Your task to perform on an android device: star an email in the gmail app Image 0: 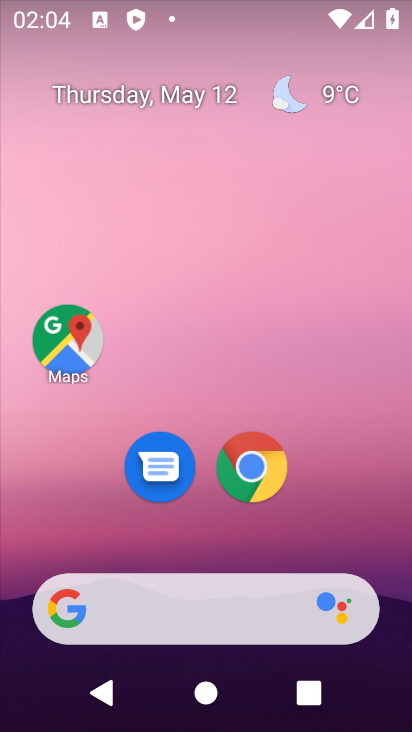
Step 0: drag from (313, 538) to (319, 194)
Your task to perform on an android device: star an email in the gmail app Image 1: 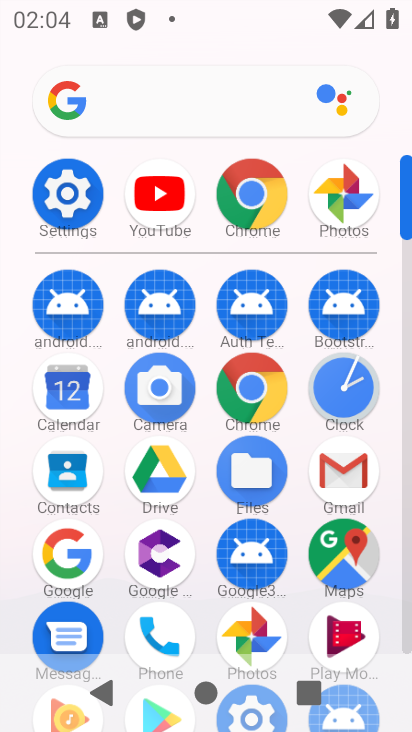
Step 1: click (350, 473)
Your task to perform on an android device: star an email in the gmail app Image 2: 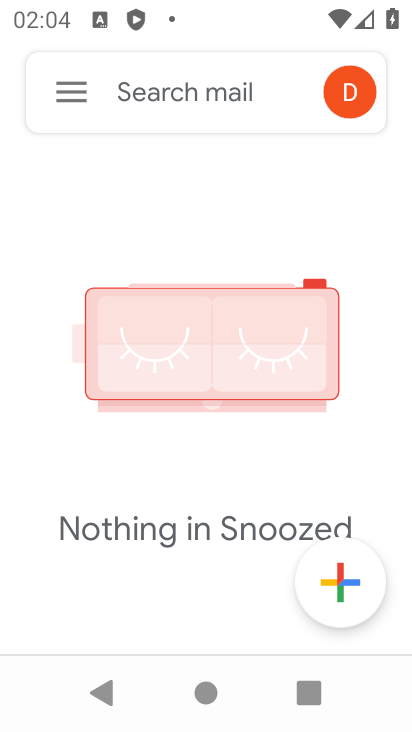
Step 2: click (63, 85)
Your task to perform on an android device: star an email in the gmail app Image 3: 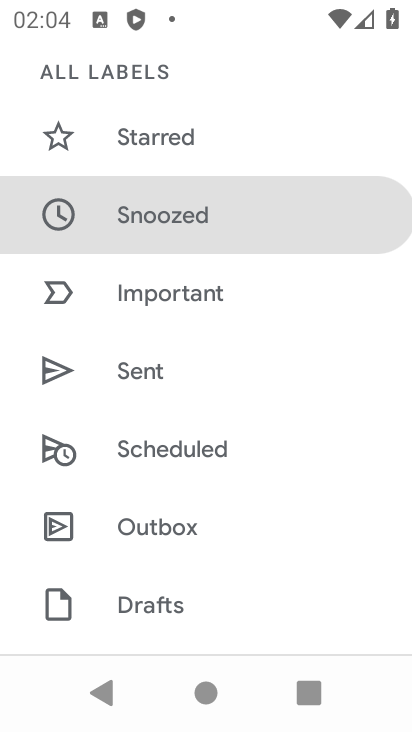
Step 3: drag from (195, 145) to (199, 281)
Your task to perform on an android device: star an email in the gmail app Image 4: 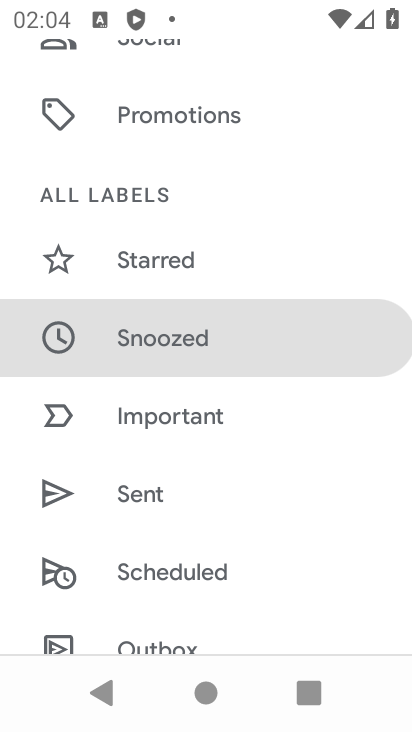
Step 4: click (127, 265)
Your task to perform on an android device: star an email in the gmail app Image 5: 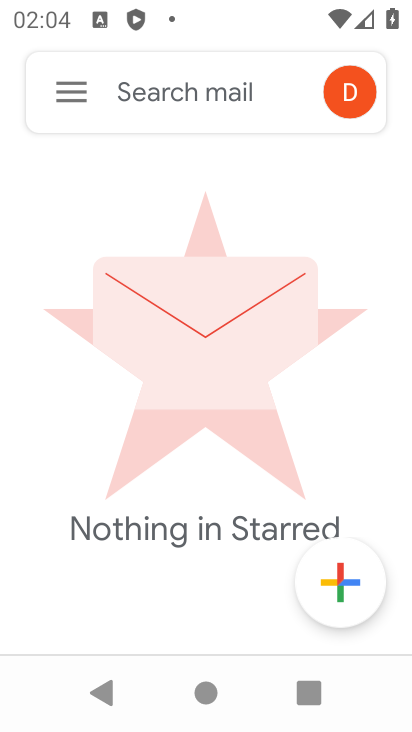
Step 5: task complete